Your task to perform on an android device: turn off priority inbox in the gmail app Image 0: 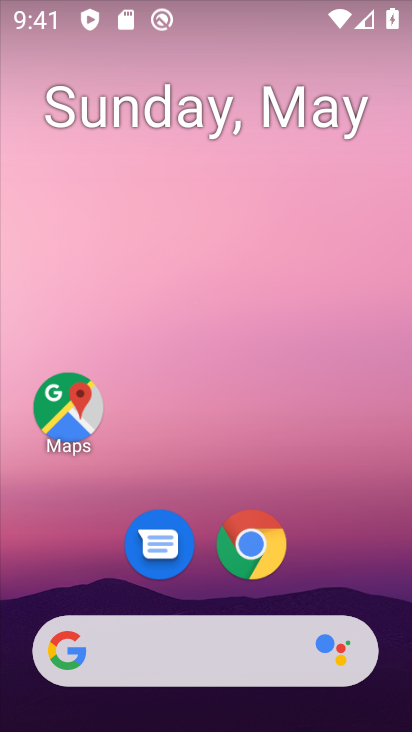
Step 0: press home button
Your task to perform on an android device: turn off priority inbox in the gmail app Image 1: 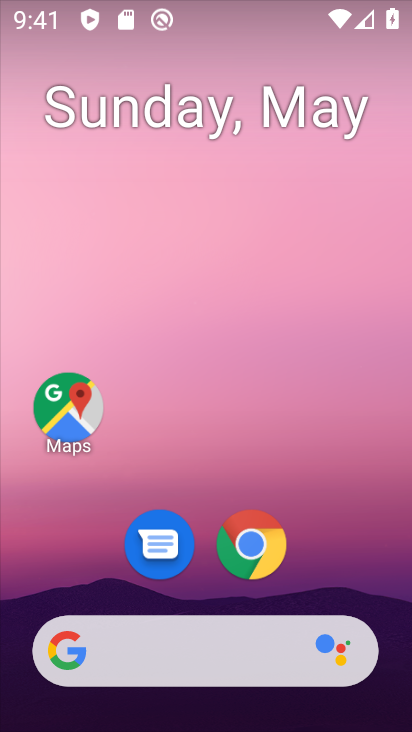
Step 1: drag from (319, 445) to (322, 83)
Your task to perform on an android device: turn off priority inbox in the gmail app Image 2: 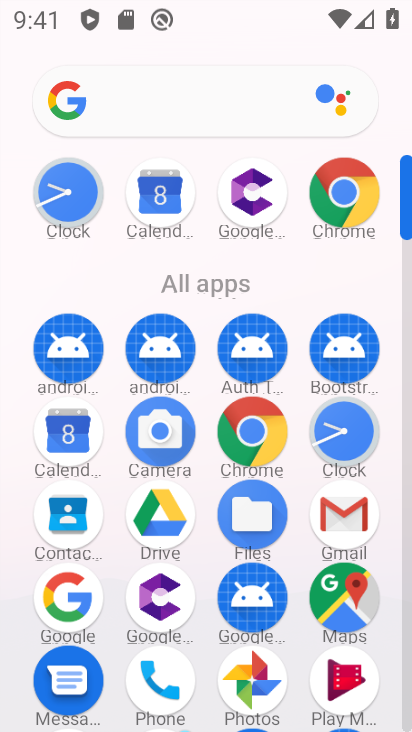
Step 2: click (354, 512)
Your task to perform on an android device: turn off priority inbox in the gmail app Image 3: 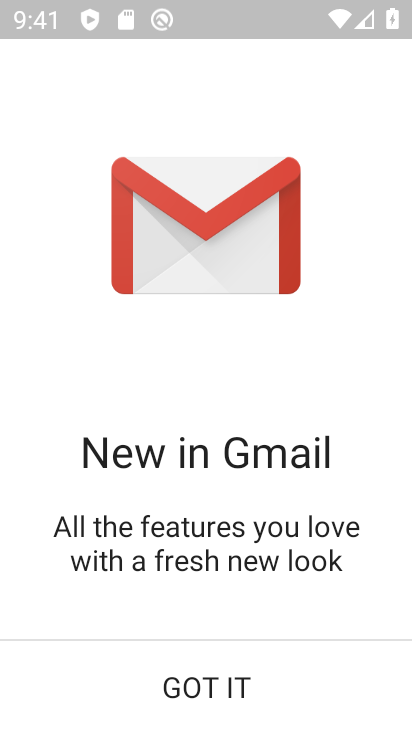
Step 3: click (228, 675)
Your task to perform on an android device: turn off priority inbox in the gmail app Image 4: 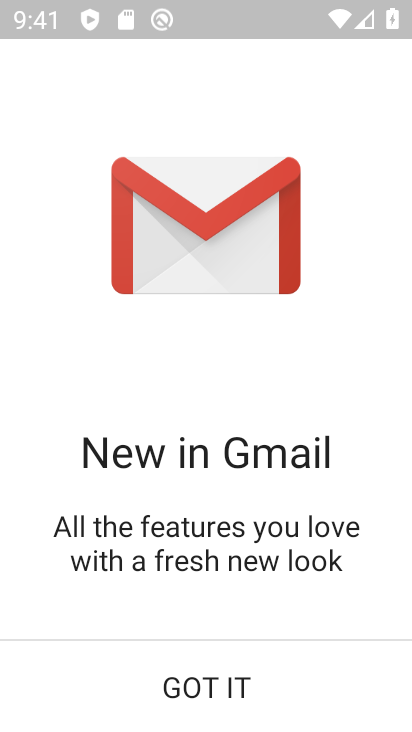
Step 4: click (228, 675)
Your task to perform on an android device: turn off priority inbox in the gmail app Image 5: 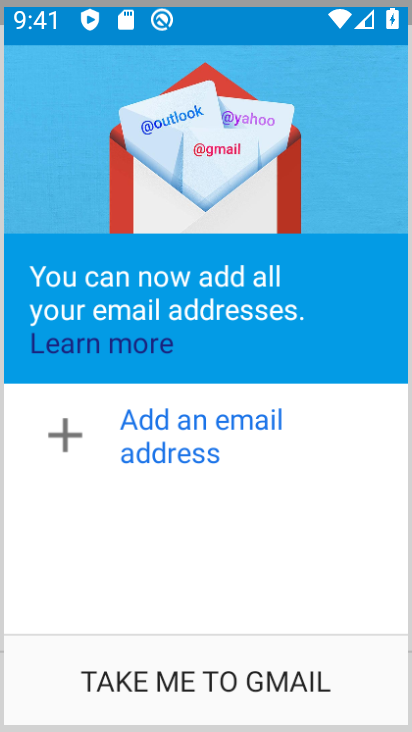
Step 5: click (228, 675)
Your task to perform on an android device: turn off priority inbox in the gmail app Image 6: 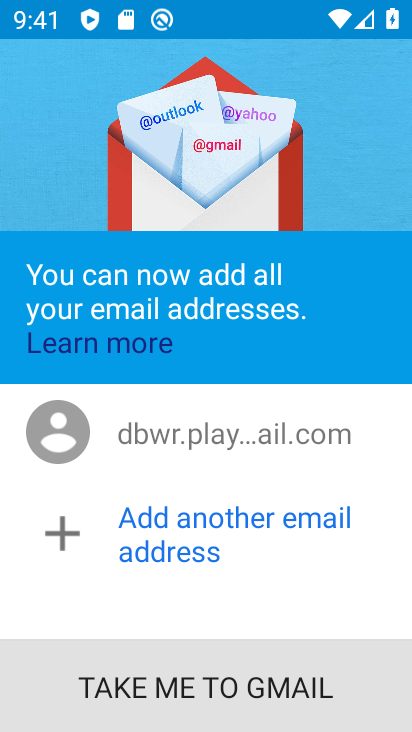
Step 6: click (228, 675)
Your task to perform on an android device: turn off priority inbox in the gmail app Image 7: 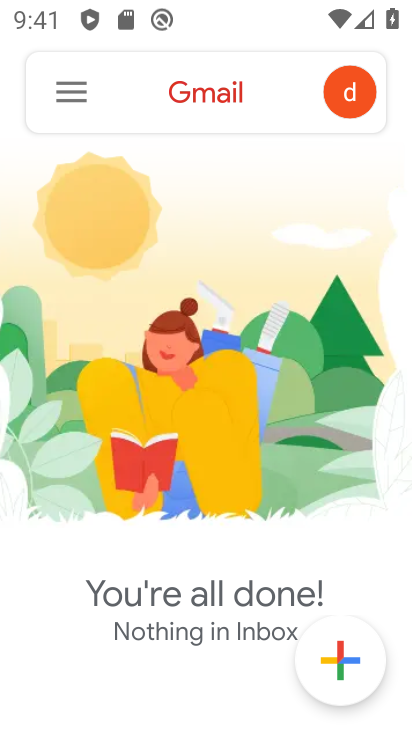
Step 7: click (60, 85)
Your task to perform on an android device: turn off priority inbox in the gmail app Image 8: 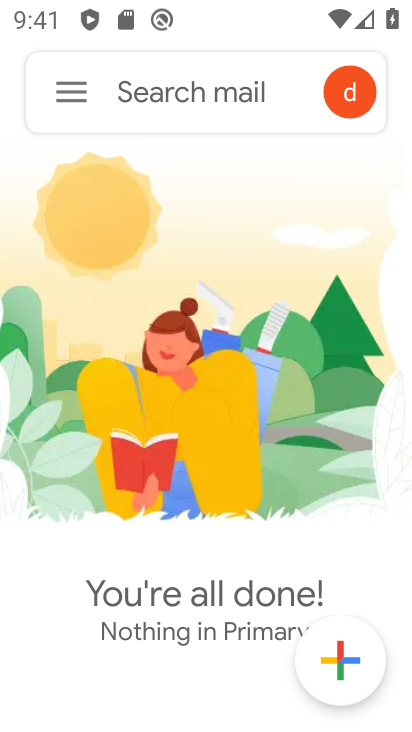
Step 8: click (74, 110)
Your task to perform on an android device: turn off priority inbox in the gmail app Image 9: 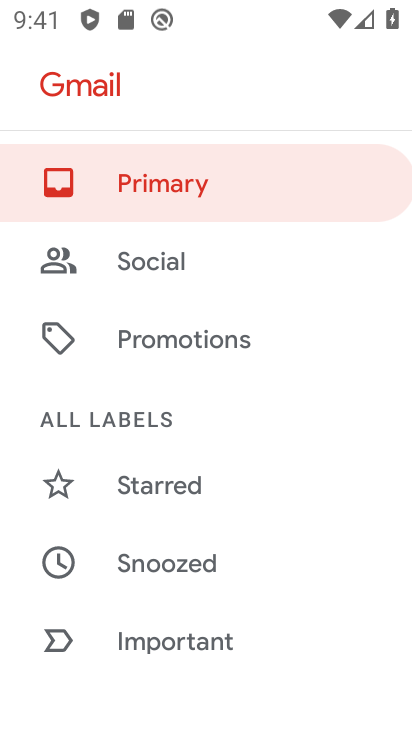
Step 9: drag from (150, 427) to (154, 40)
Your task to perform on an android device: turn off priority inbox in the gmail app Image 10: 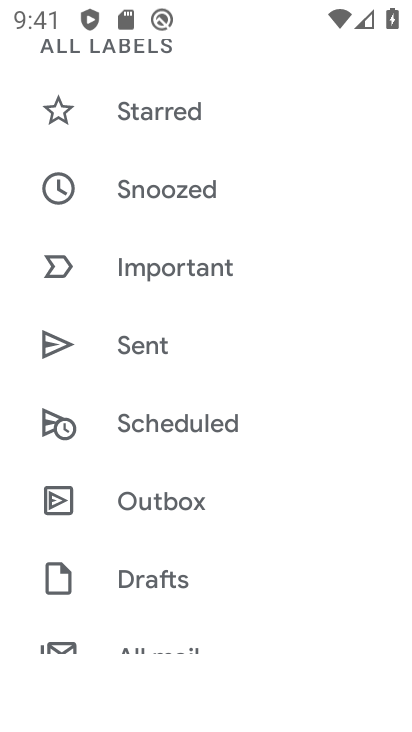
Step 10: drag from (186, 389) to (186, 157)
Your task to perform on an android device: turn off priority inbox in the gmail app Image 11: 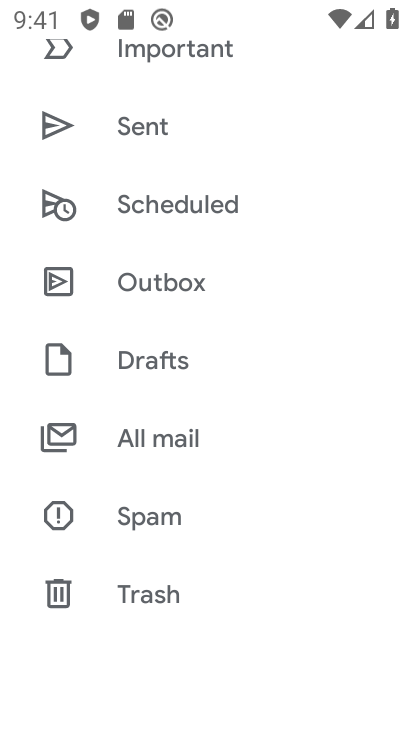
Step 11: drag from (208, 475) to (205, 327)
Your task to perform on an android device: turn off priority inbox in the gmail app Image 12: 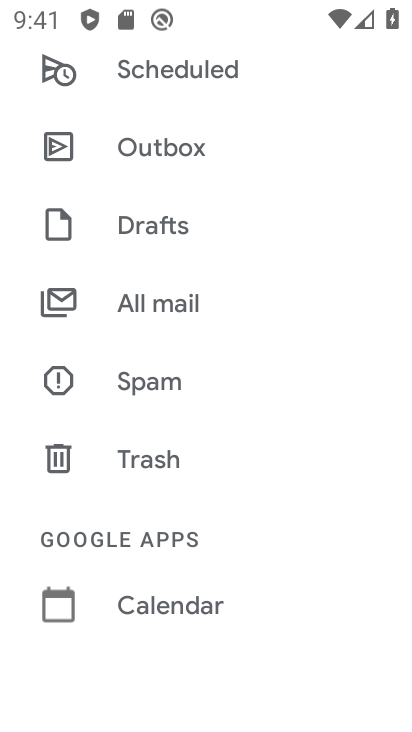
Step 12: drag from (203, 507) to (203, 134)
Your task to perform on an android device: turn off priority inbox in the gmail app Image 13: 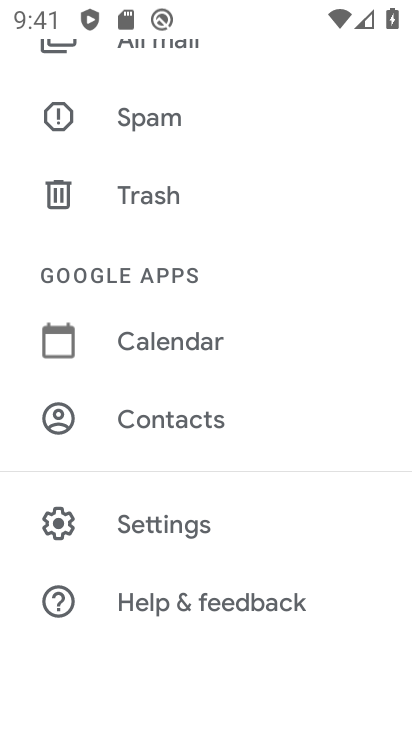
Step 13: drag from (233, 443) to (233, 111)
Your task to perform on an android device: turn off priority inbox in the gmail app Image 14: 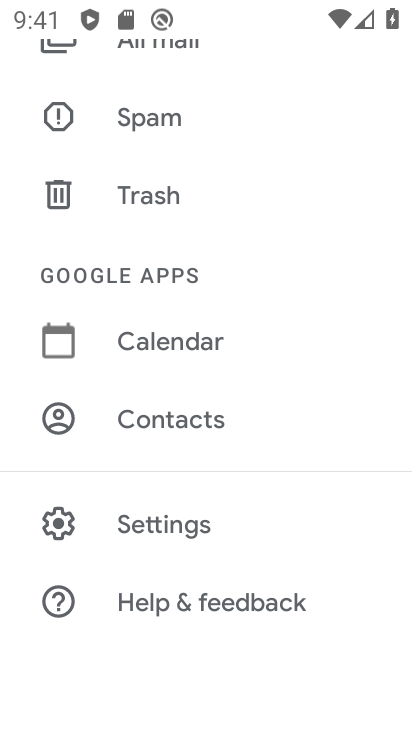
Step 14: click (207, 533)
Your task to perform on an android device: turn off priority inbox in the gmail app Image 15: 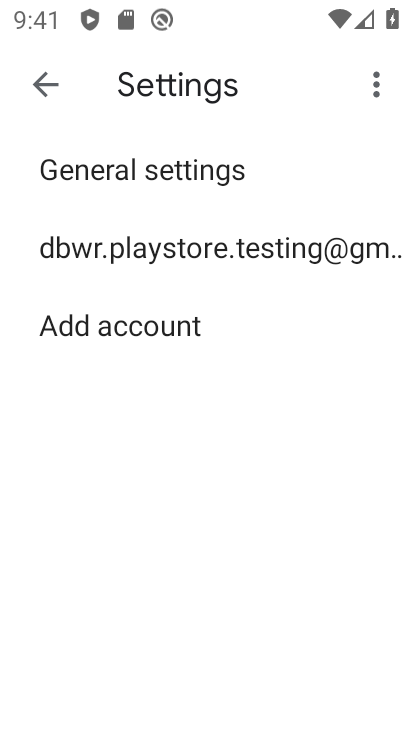
Step 15: click (255, 250)
Your task to perform on an android device: turn off priority inbox in the gmail app Image 16: 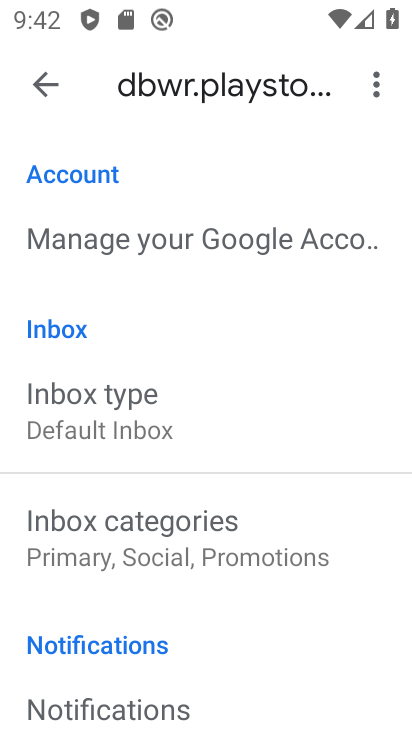
Step 16: drag from (262, 610) to (258, 445)
Your task to perform on an android device: turn off priority inbox in the gmail app Image 17: 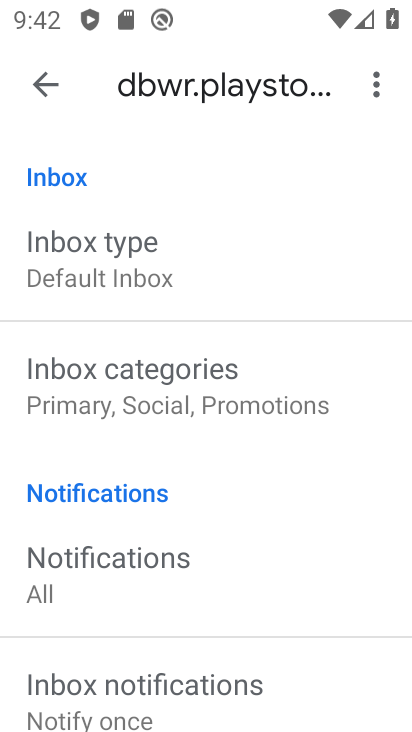
Step 17: drag from (169, 673) to (143, 201)
Your task to perform on an android device: turn off priority inbox in the gmail app Image 18: 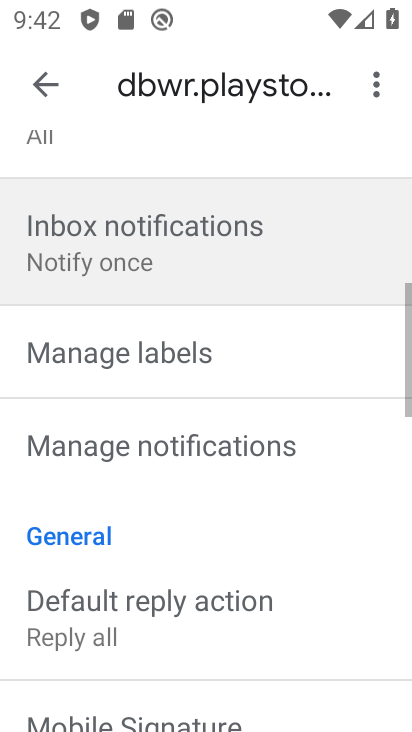
Step 18: drag from (143, 201) to (182, 702)
Your task to perform on an android device: turn off priority inbox in the gmail app Image 19: 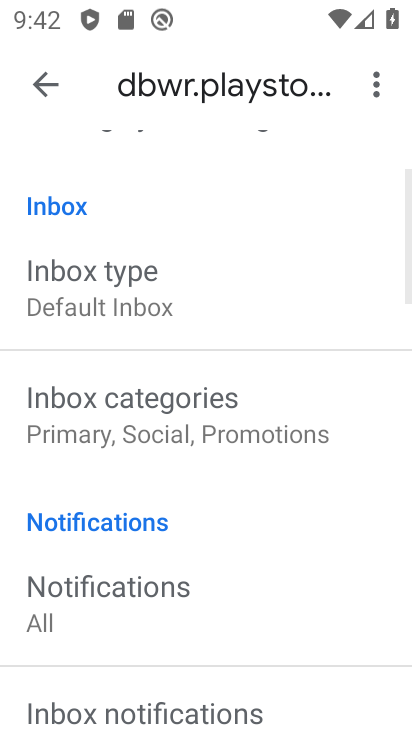
Step 19: click (156, 336)
Your task to perform on an android device: turn off priority inbox in the gmail app Image 20: 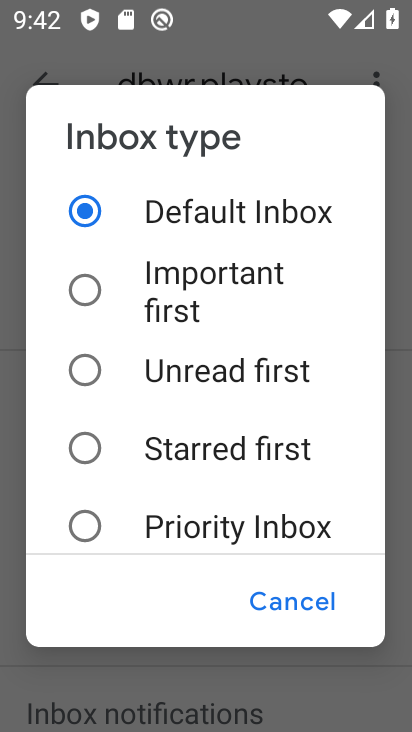
Step 20: click (209, 532)
Your task to perform on an android device: turn off priority inbox in the gmail app Image 21: 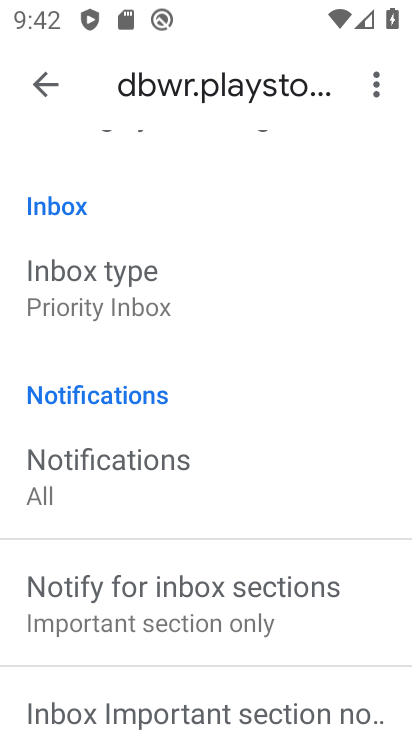
Step 21: click (90, 322)
Your task to perform on an android device: turn off priority inbox in the gmail app Image 22: 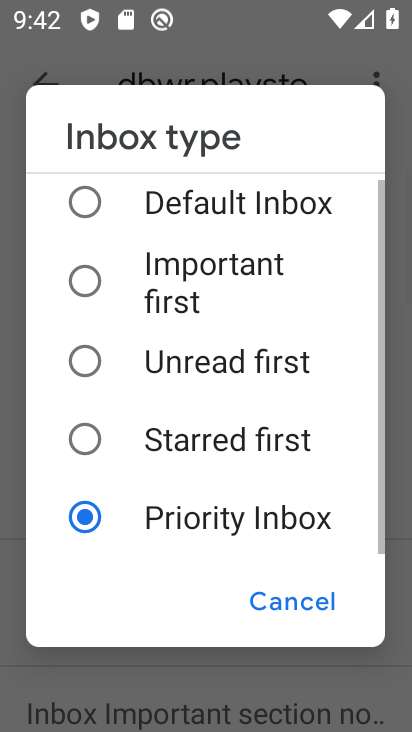
Step 22: click (143, 217)
Your task to perform on an android device: turn off priority inbox in the gmail app Image 23: 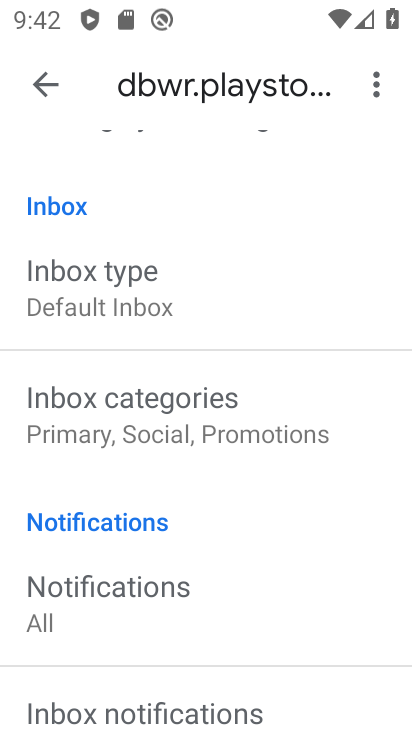
Step 23: task complete